Your task to perform on an android device: Go to eBay Image 0: 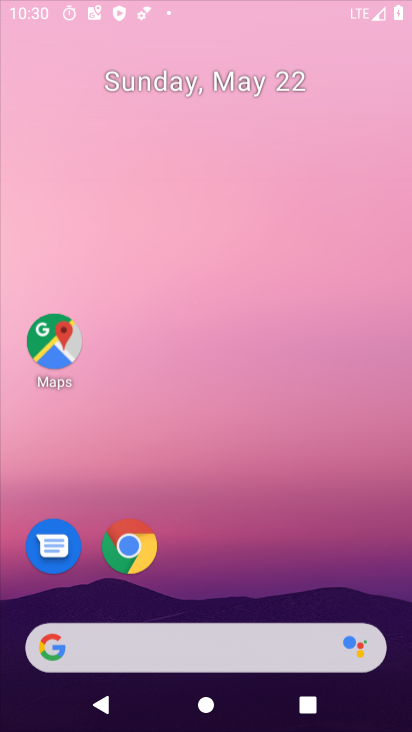
Step 0: drag from (274, 563) to (310, 176)
Your task to perform on an android device: Go to eBay Image 1: 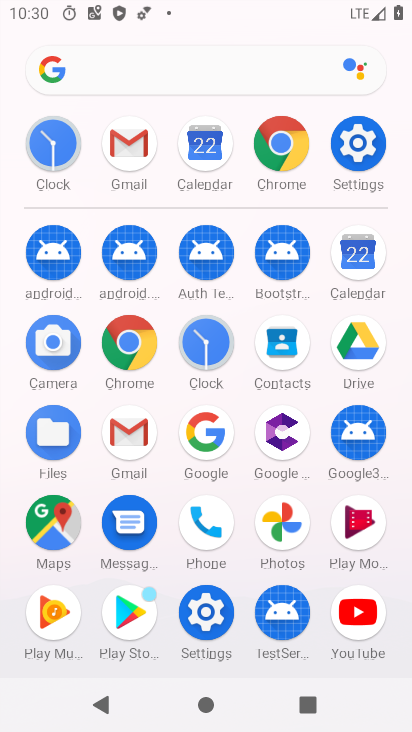
Step 1: click (217, 59)
Your task to perform on an android device: Go to eBay Image 2: 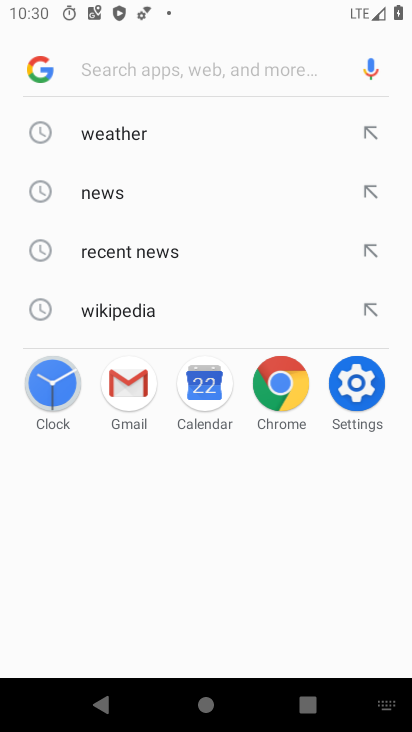
Step 2: type "ebay"
Your task to perform on an android device: Go to eBay Image 3: 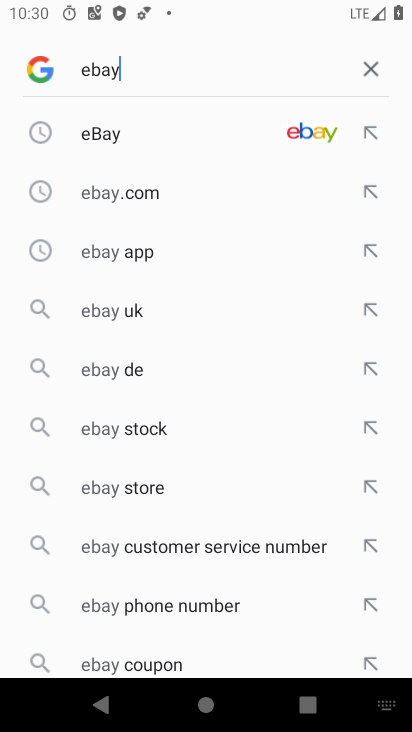
Step 3: click (215, 142)
Your task to perform on an android device: Go to eBay Image 4: 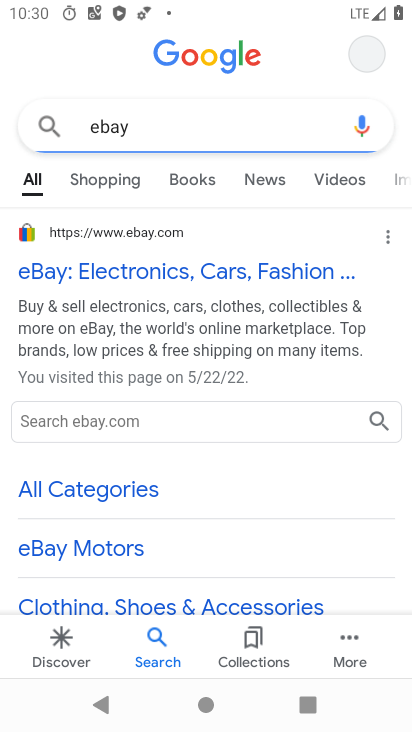
Step 4: task complete